Your task to perform on an android device: toggle wifi Image 0: 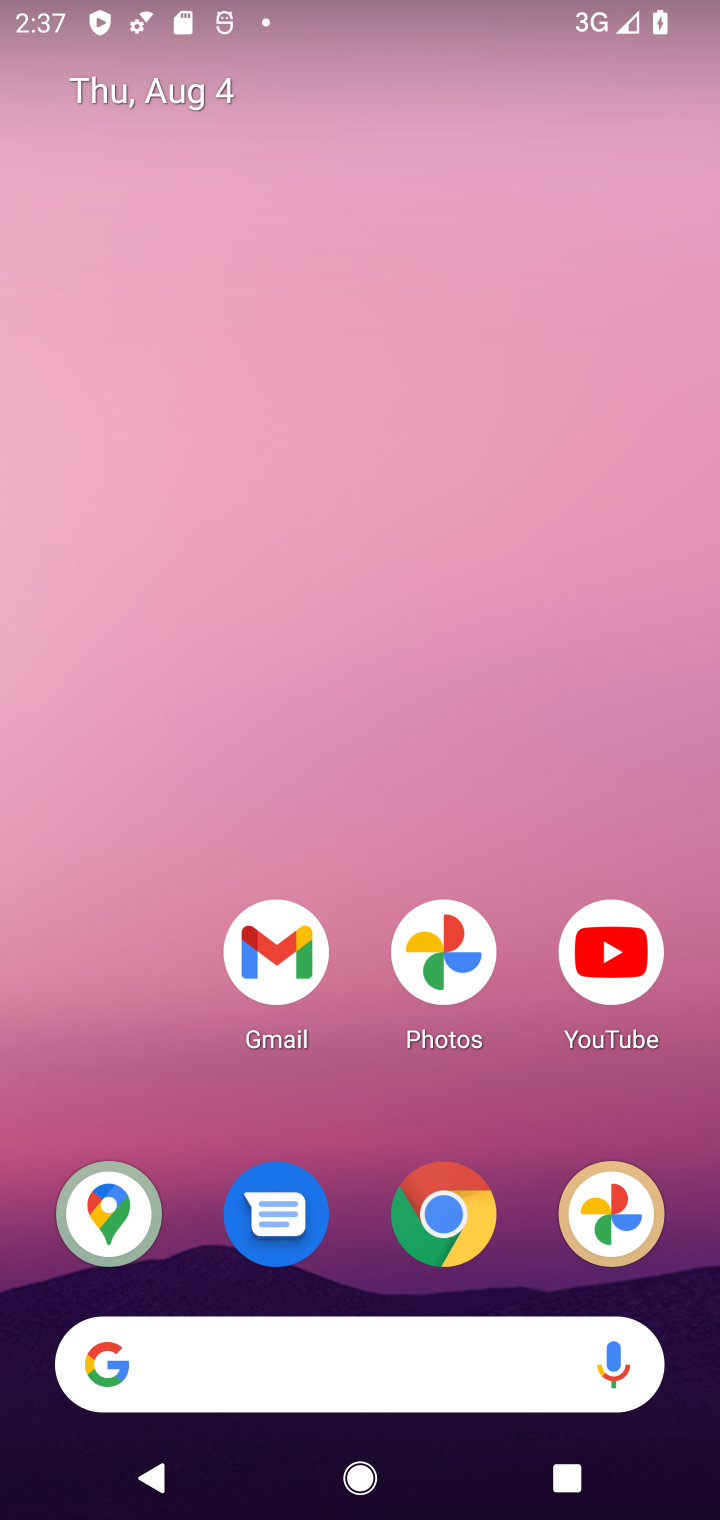
Step 0: drag from (112, 1081) to (154, 53)
Your task to perform on an android device: toggle wifi Image 1: 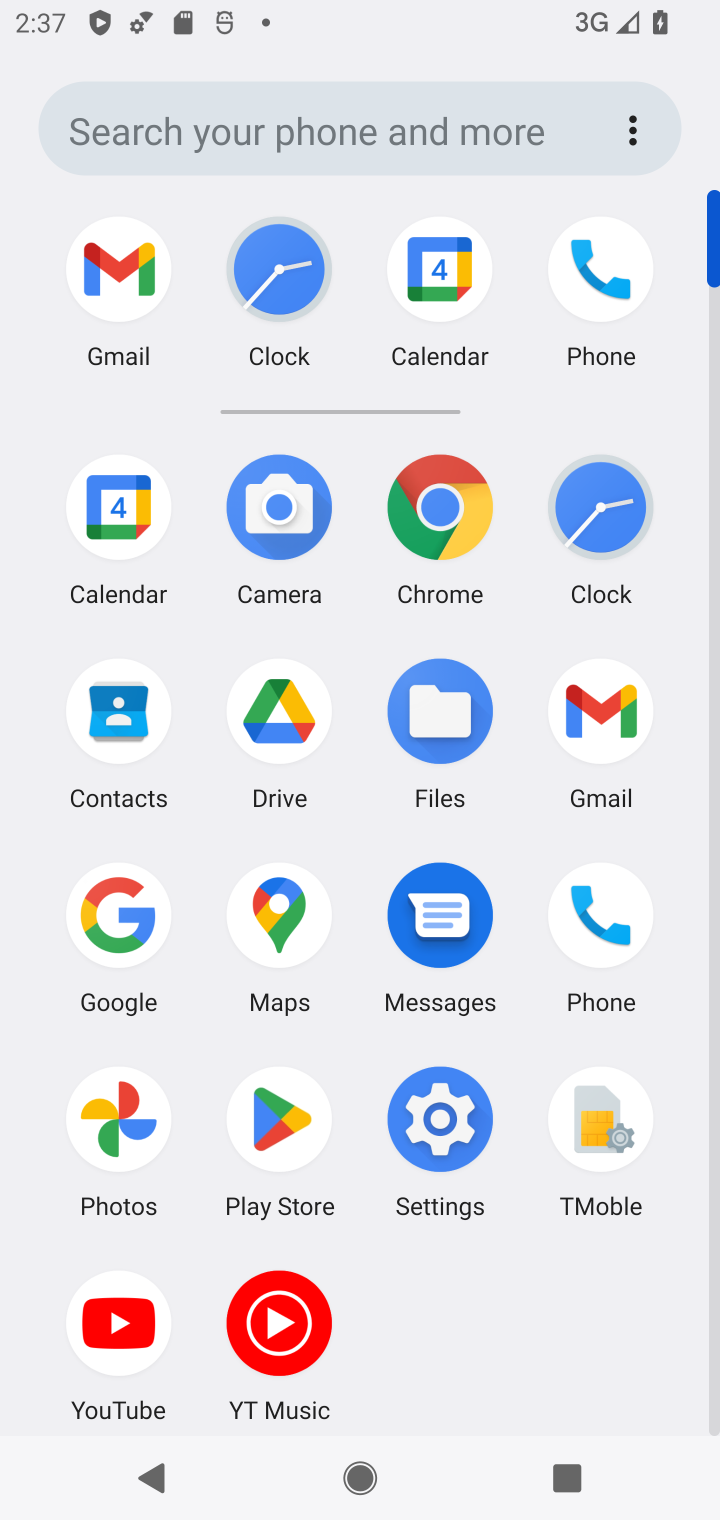
Step 1: drag from (335, 14) to (479, 1202)
Your task to perform on an android device: toggle wifi Image 2: 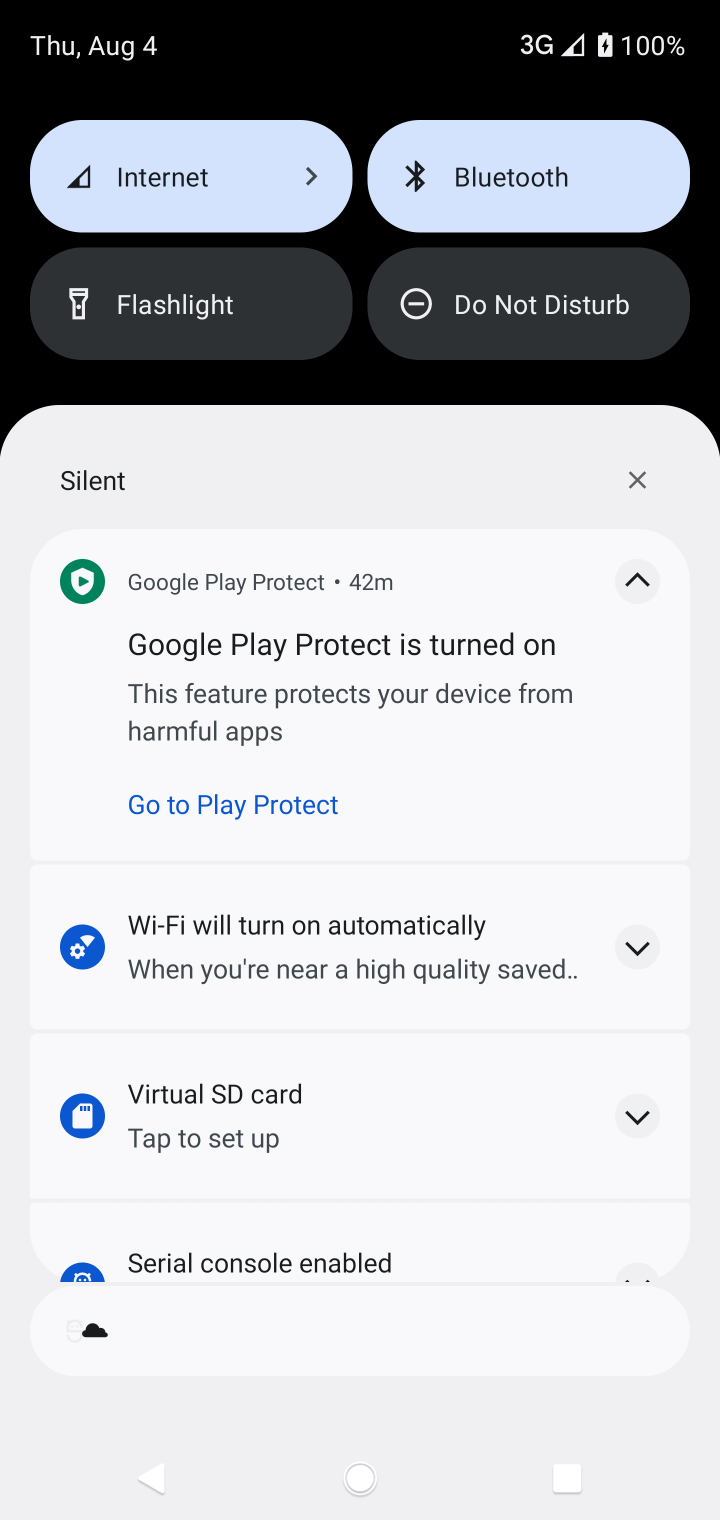
Step 2: drag from (328, 376) to (364, 1302)
Your task to perform on an android device: toggle wifi Image 3: 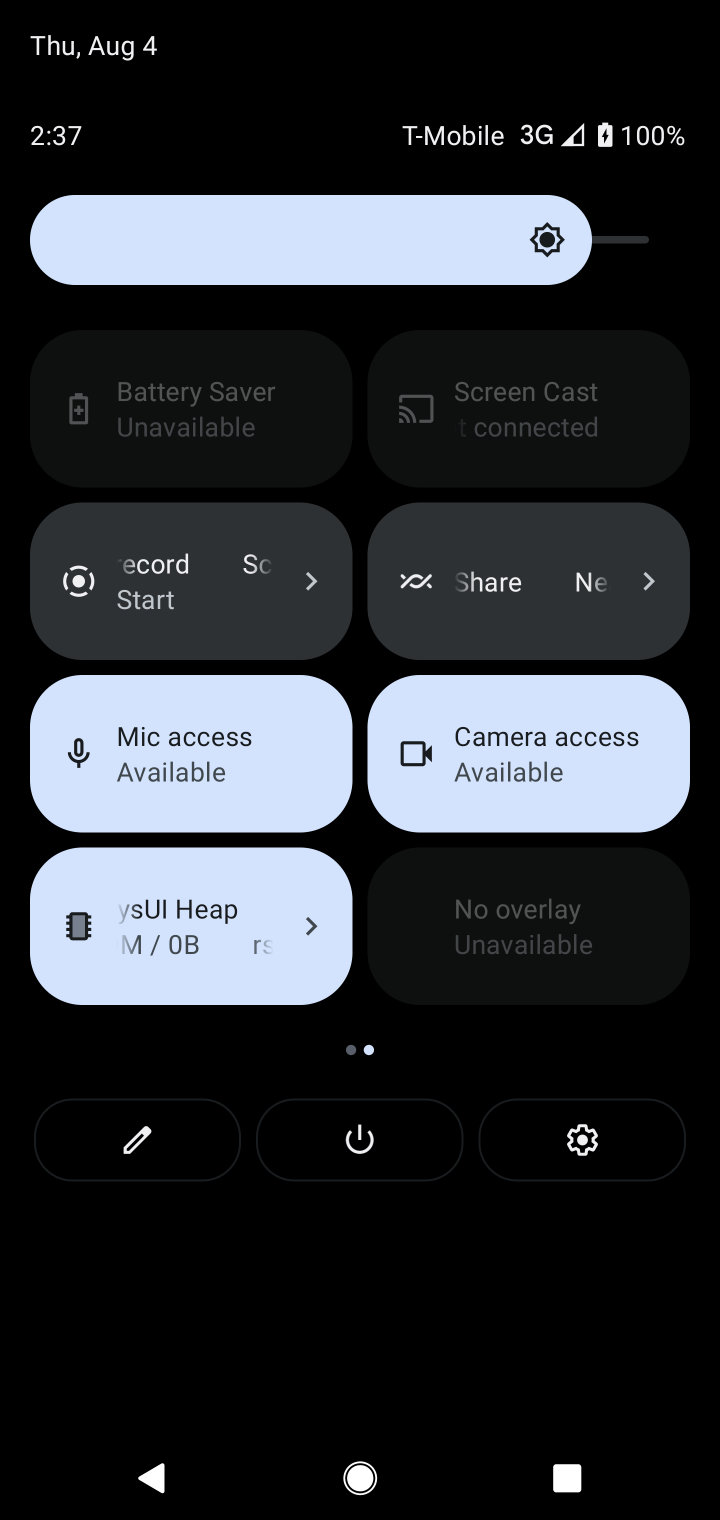
Step 3: drag from (153, 1018) to (707, 1000)
Your task to perform on an android device: toggle wifi Image 4: 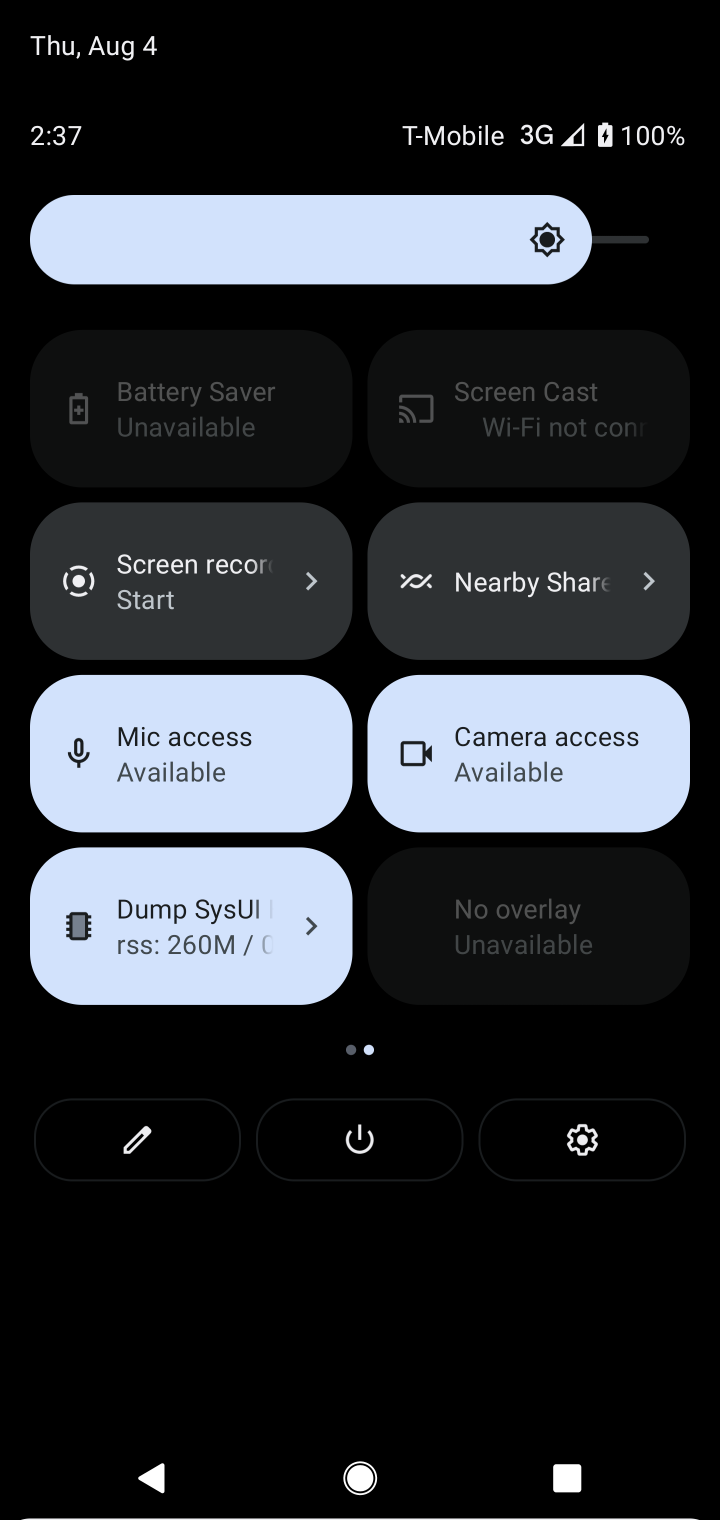
Step 4: drag from (58, 401) to (720, 474)
Your task to perform on an android device: toggle wifi Image 5: 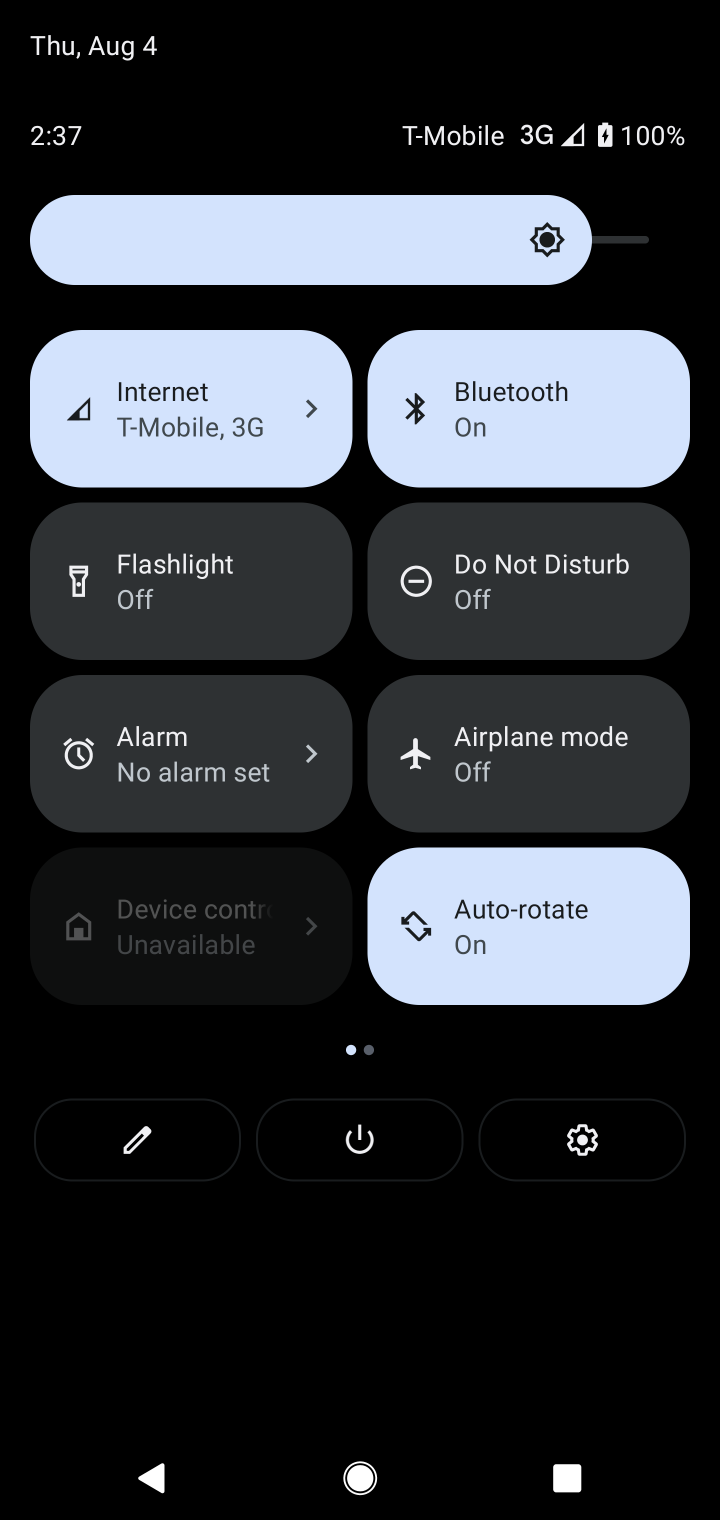
Step 5: drag from (446, 1291) to (436, 70)
Your task to perform on an android device: toggle wifi Image 6: 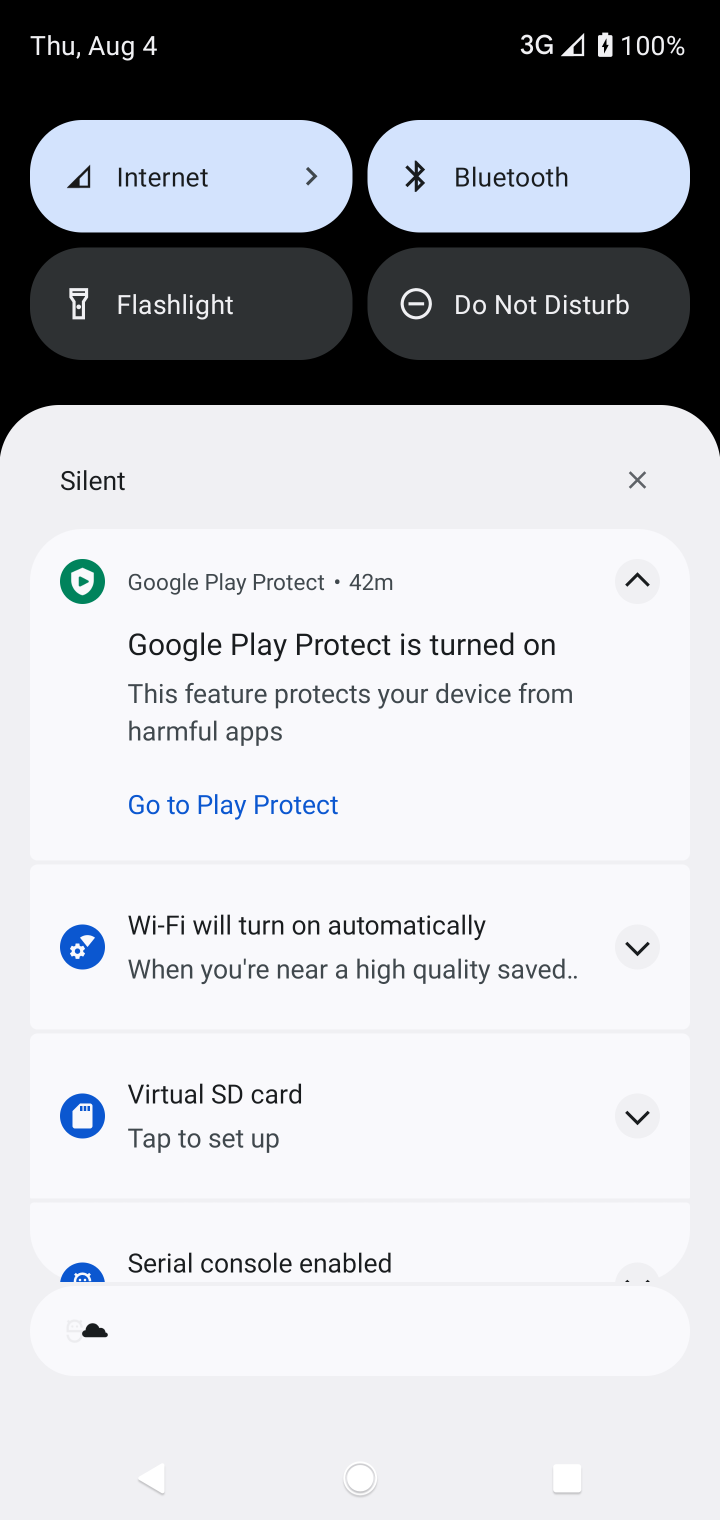
Step 6: press back button
Your task to perform on an android device: toggle wifi Image 7: 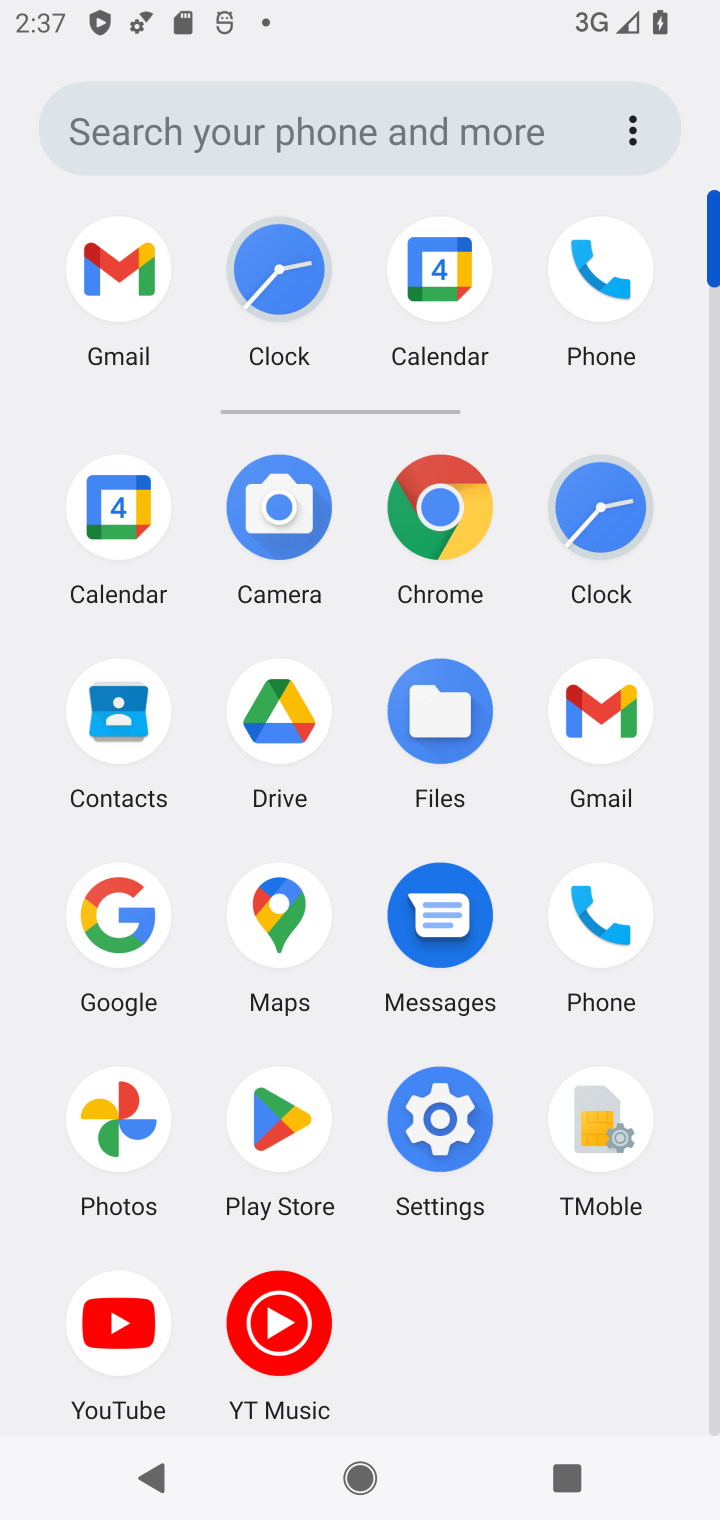
Step 7: click (471, 1143)
Your task to perform on an android device: toggle wifi Image 8: 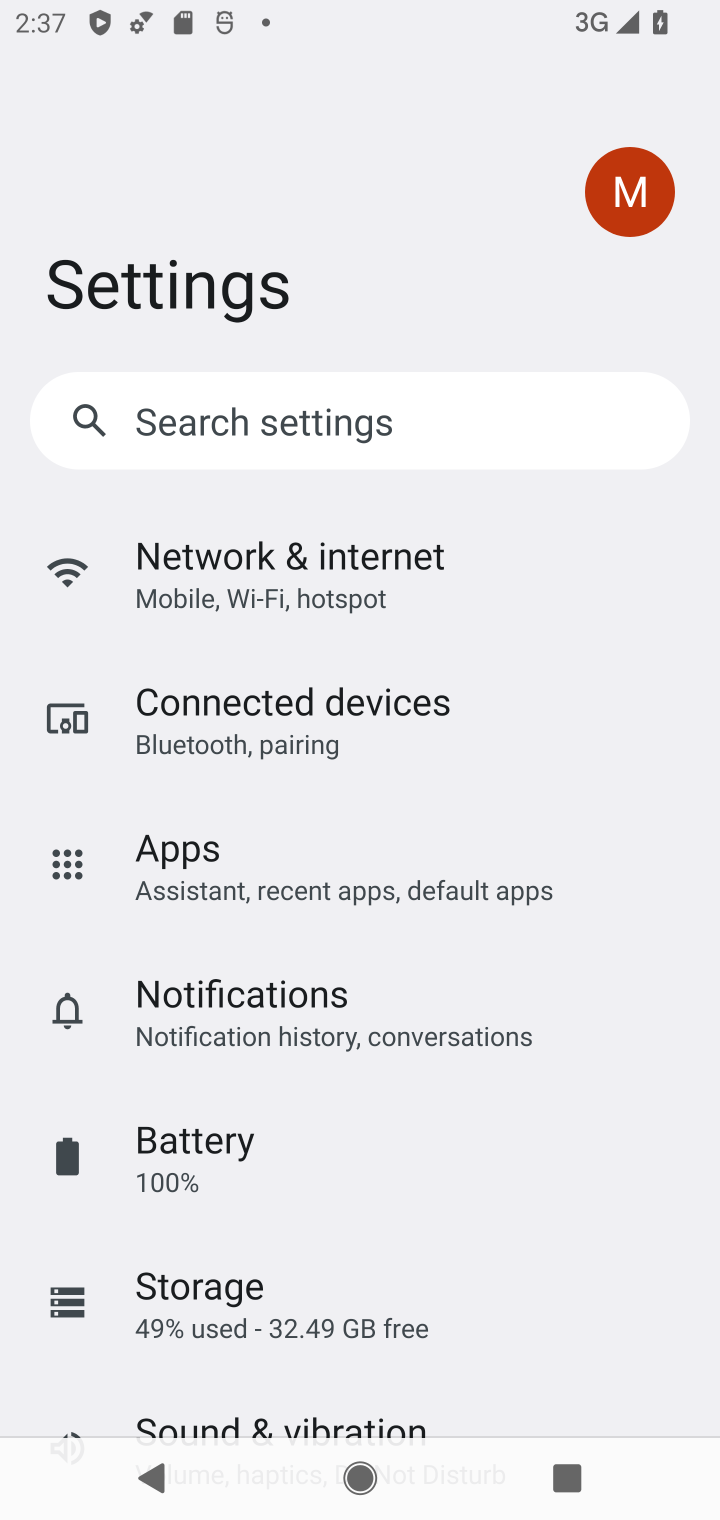
Step 8: click (254, 588)
Your task to perform on an android device: toggle wifi Image 9: 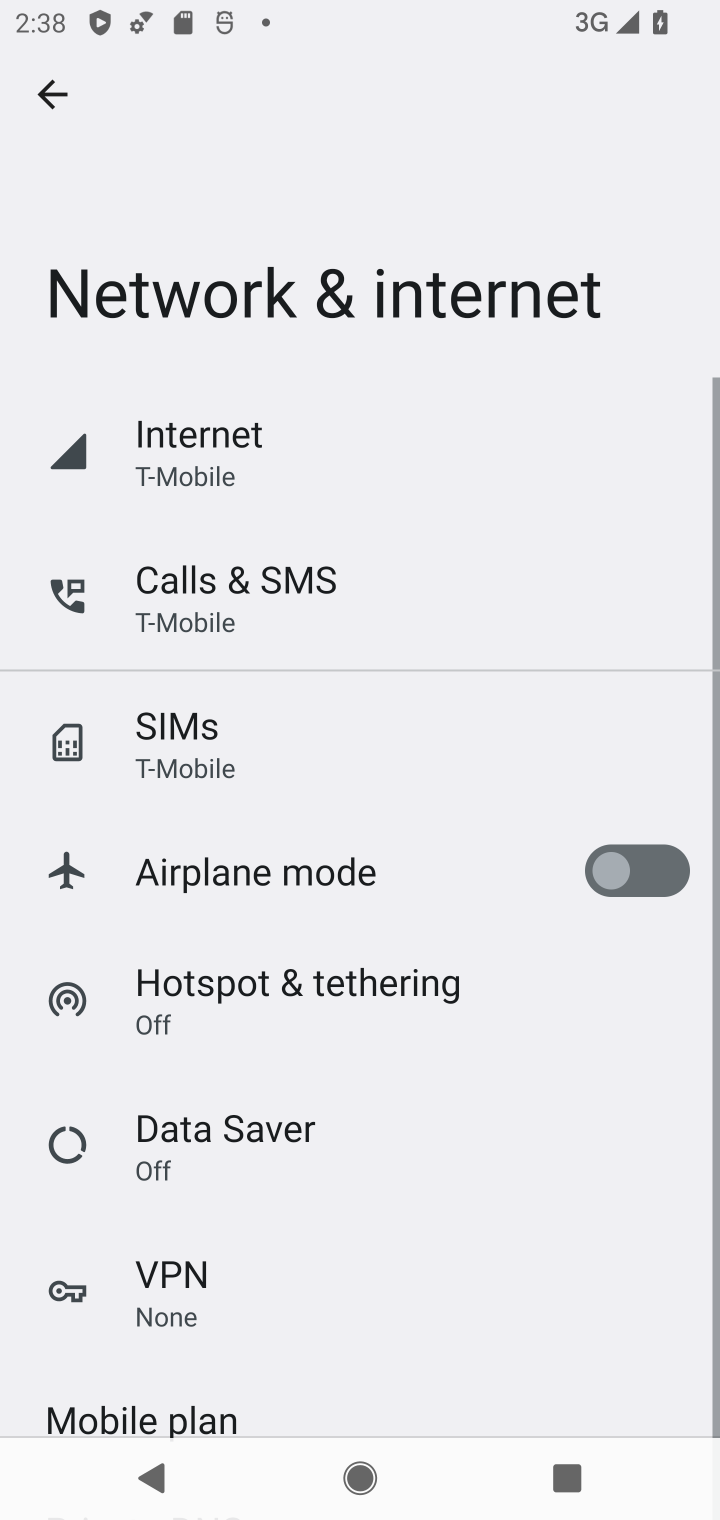
Step 9: click (188, 411)
Your task to perform on an android device: toggle wifi Image 10: 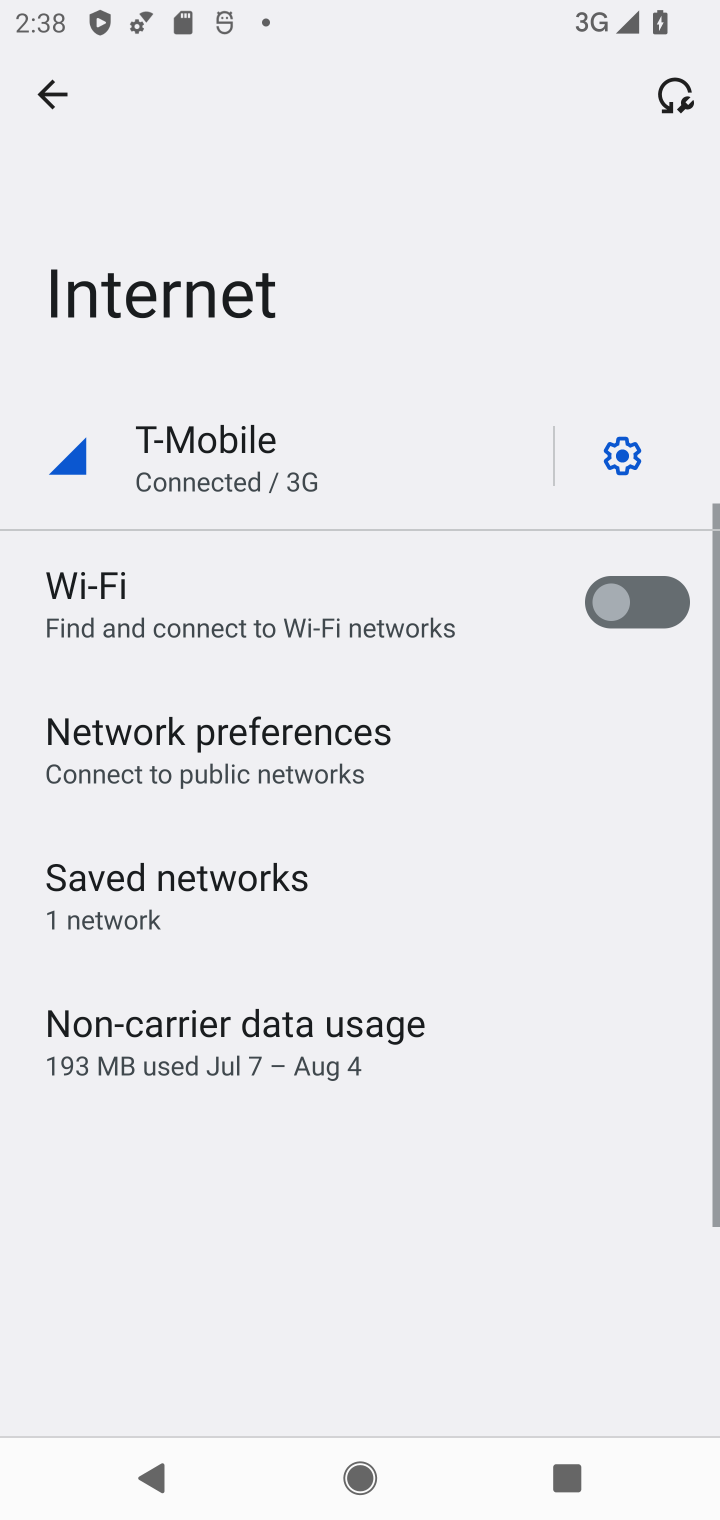
Step 10: click (658, 606)
Your task to perform on an android device: toggle wifi Image 11: 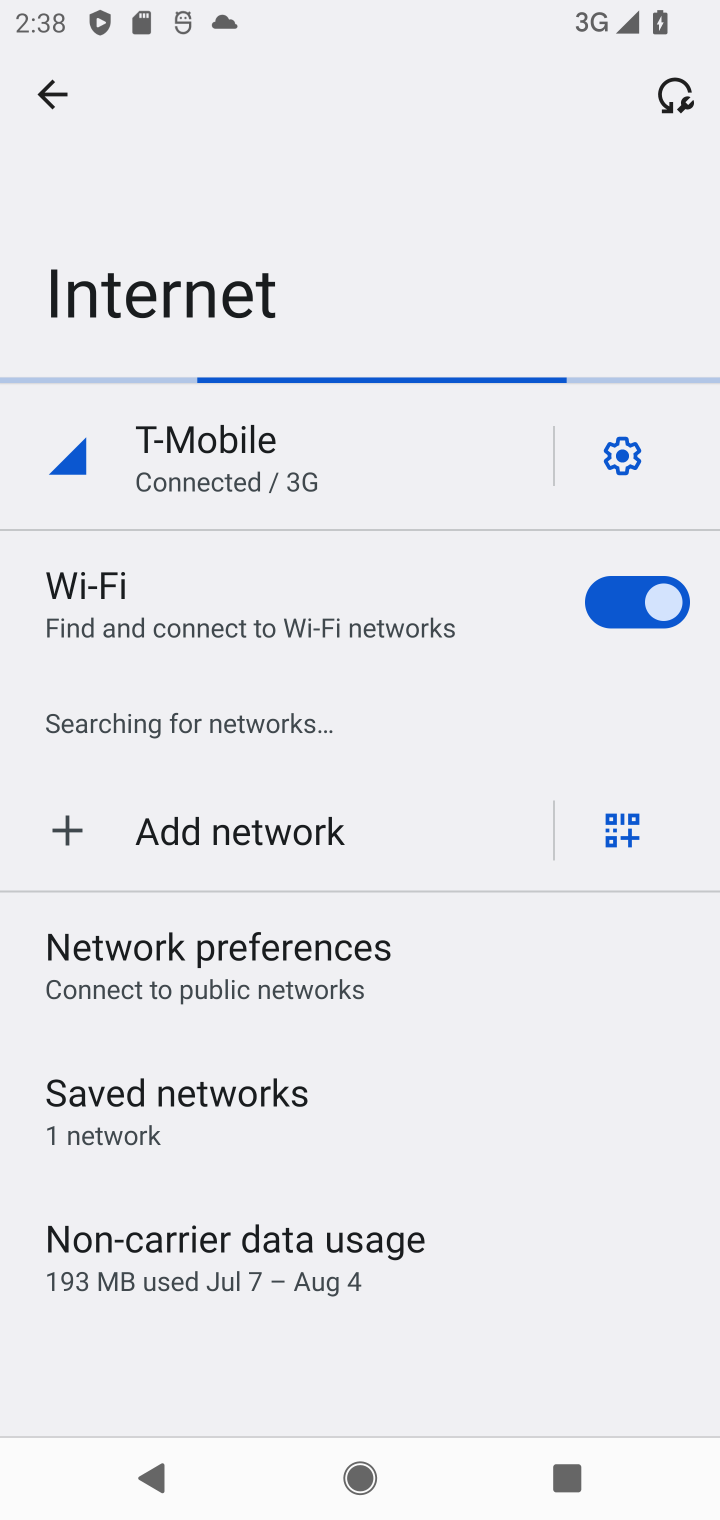
Step 11: task complete